Your task to perform on an android device: View the shopping cart on costco.com. Search for "logitech g pro" on costco.com, select the first entry, and add it to the cart. Image 0: 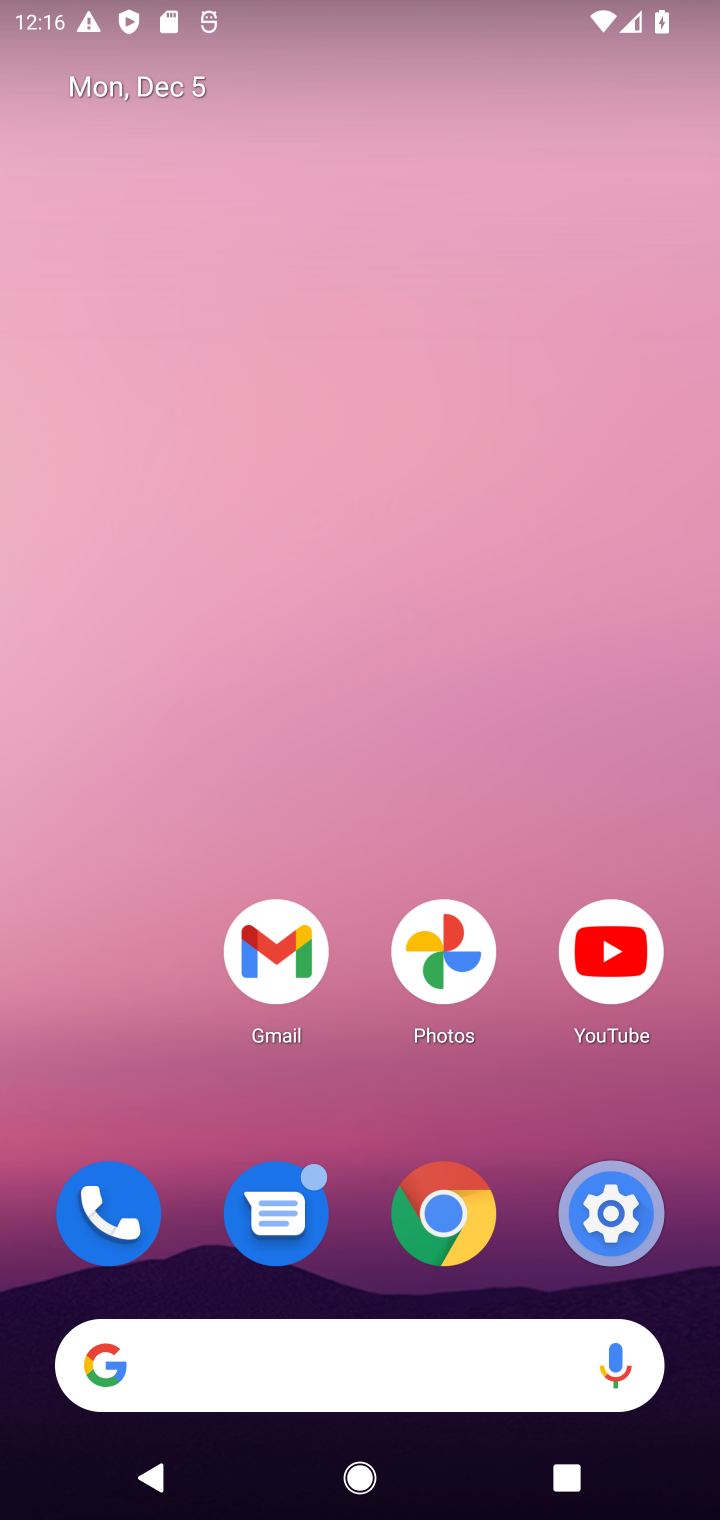
Step 0: click (439, 1216)
Your task to perform on an android device: View the shopping cart on costco.com. Search for "logitech g pro" on costco.com, select the first entry, and add it to the cart. Image 1: 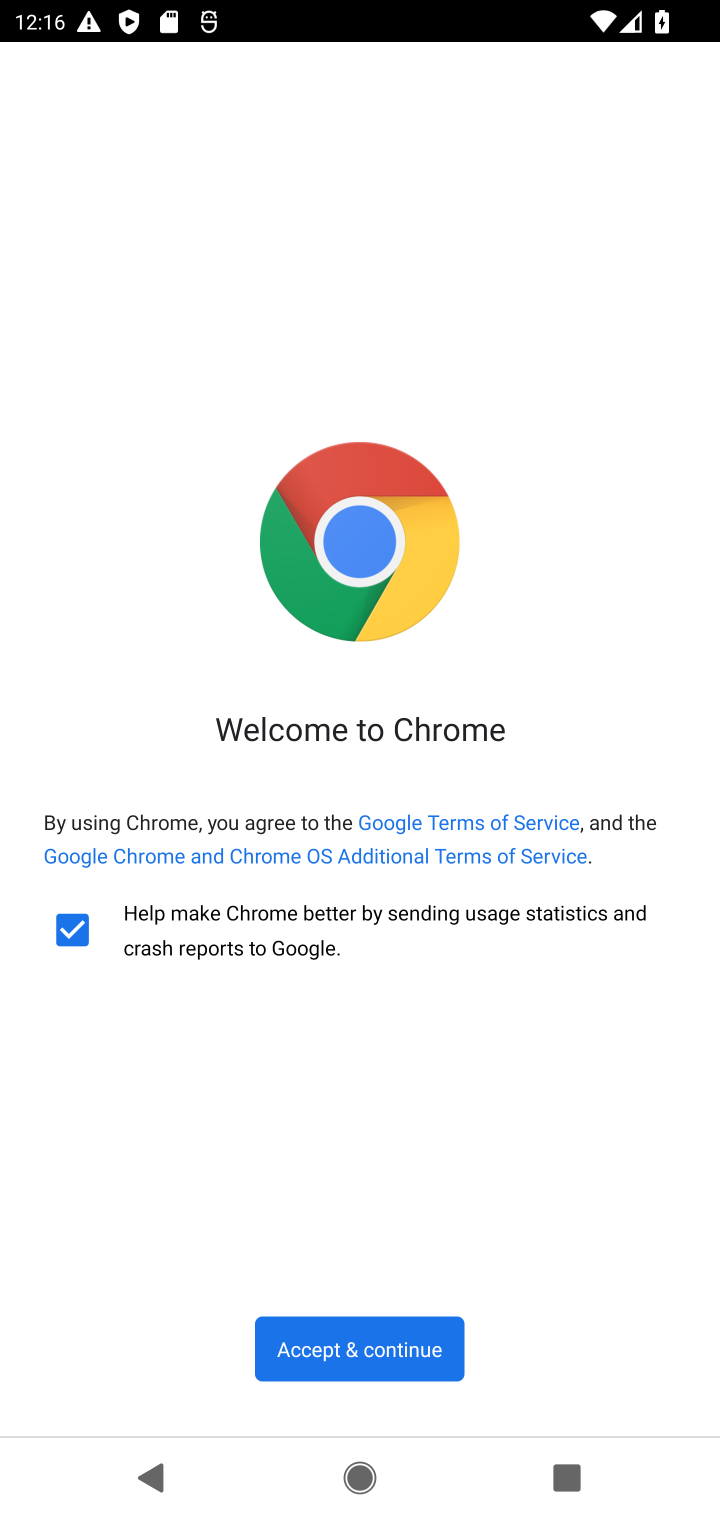
Step 1: click (364, 1339)
Your task to perform on an android device: View the shopping cart on costco.com. Search for "logitech g pro" on costco.com, select the first entry, and add it to the cart. Image 2: 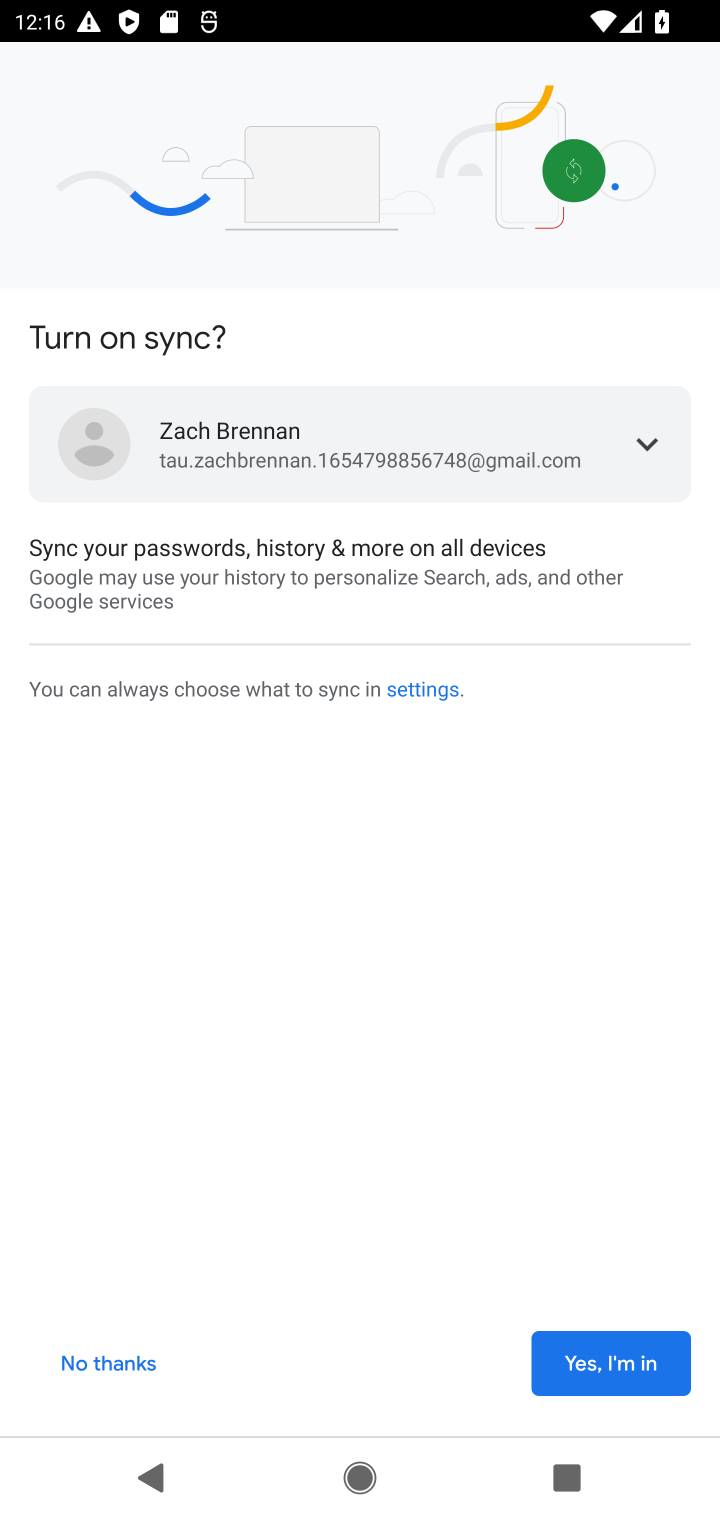
Step 2: click (78, 1354)
Your task to perform on an android device: View the shopping cart on costco.com. Search for "logitech g pro" on costco.com, select the first entry, and add it to the cart. Image 3: 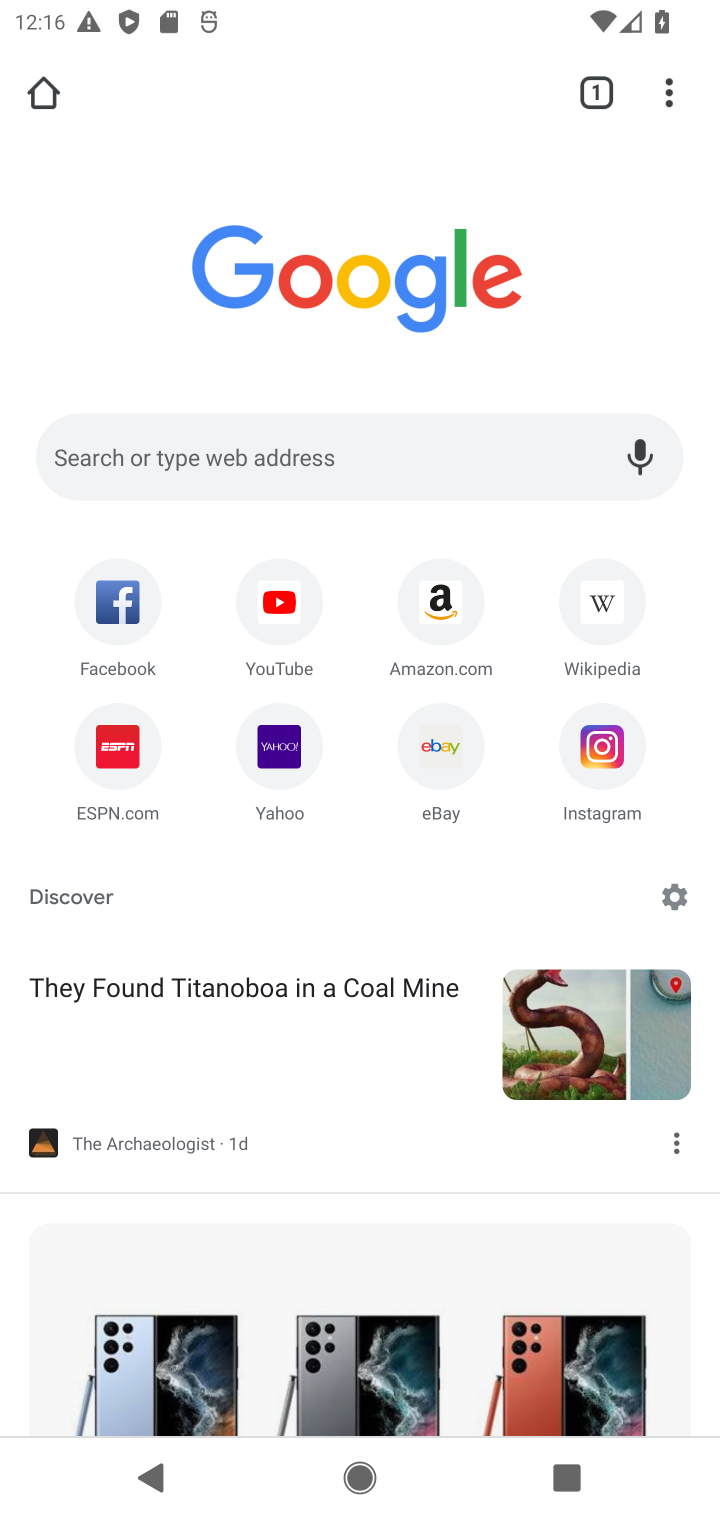
Step 3: click (237, 455)
Your task to perform on an android device: View the shopping cart on costco.com. Search for "logitech g pro" on costco.com, select the first entry, and add it to the cart. Image 4: 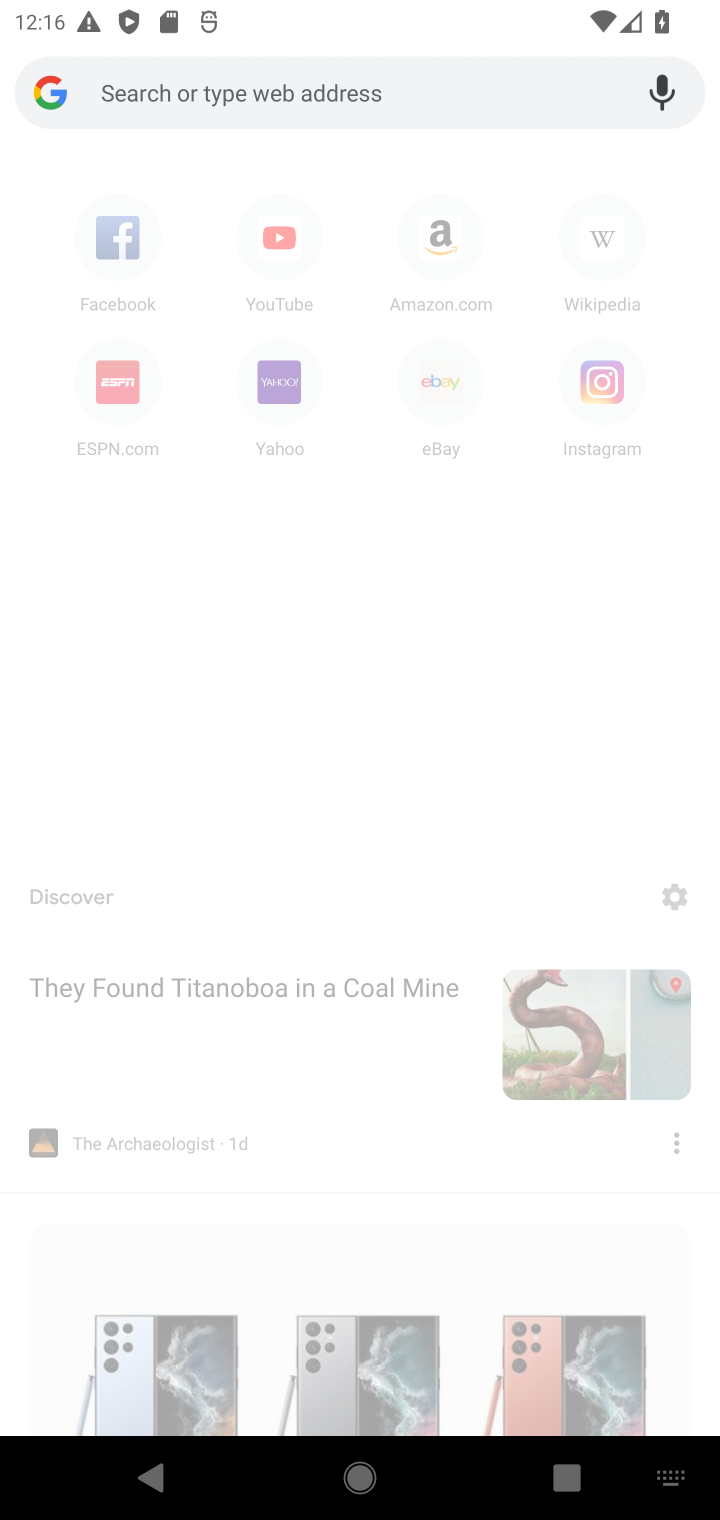
Step 4: type "costco.com"
Your task to perform on an android device: View the shopping cart on costco.com. Search for "logitech g pro" on costco.com, select the first entry, and add it to the cart. Image 5: 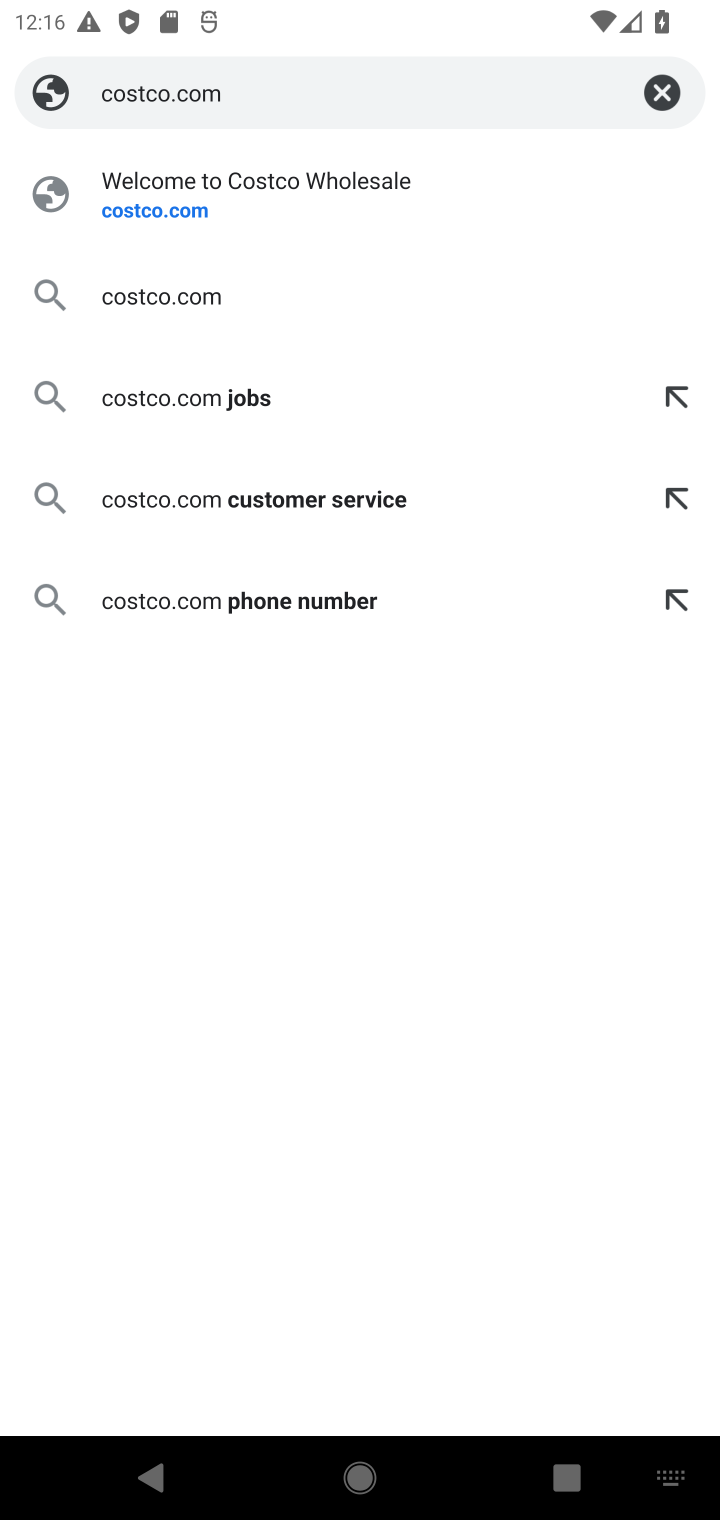
Step 5: click (182, 210)
Your task to perform on an android device: View the shopping cart on costco.com. Search for "logitech g pro" on costco.com, select the first entry, and add it to the cart. Image 6: 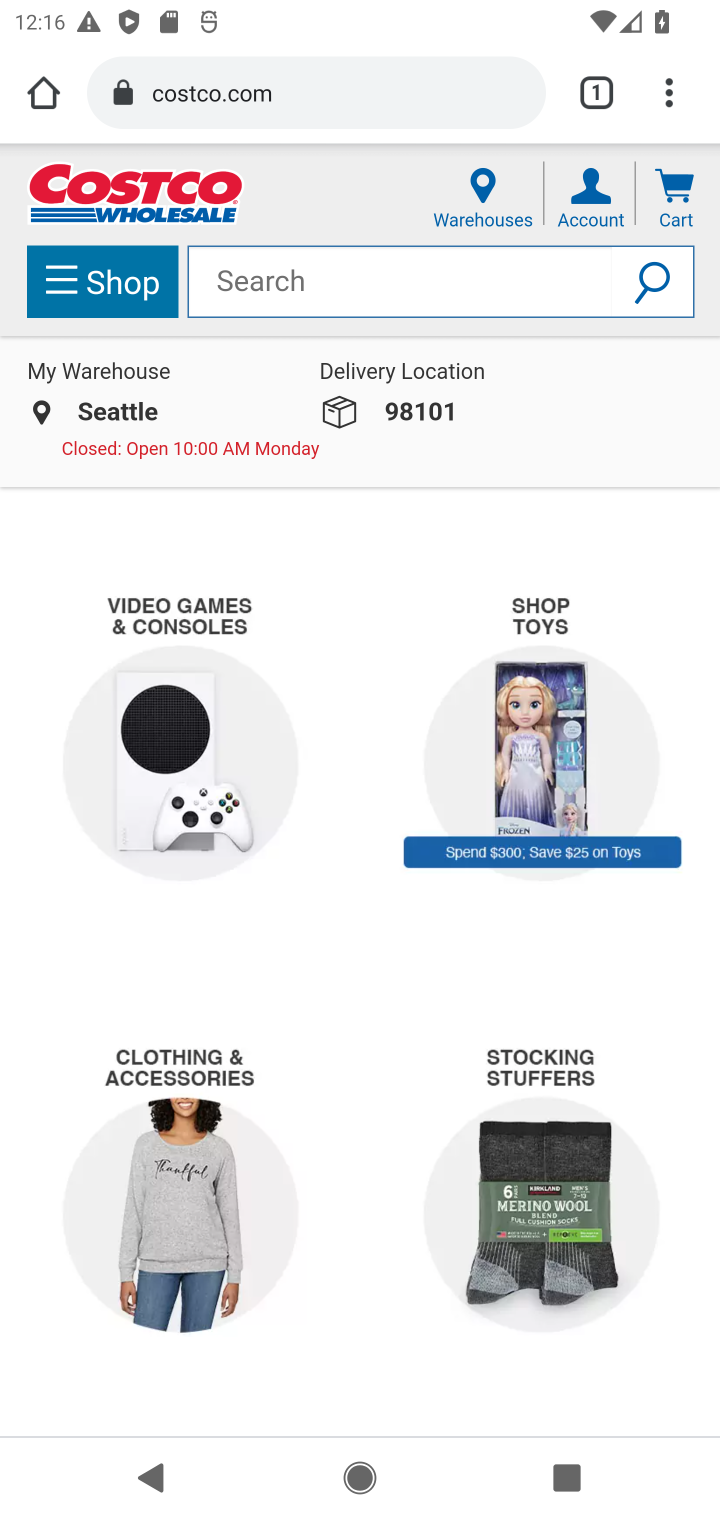
Step 6: click (686, 192)
Your task to perform on an android device: View the shopping cart on costco.com. Search for "logitech g pro" on costco.com, select the first entry, and add it to the cart. Image 7: 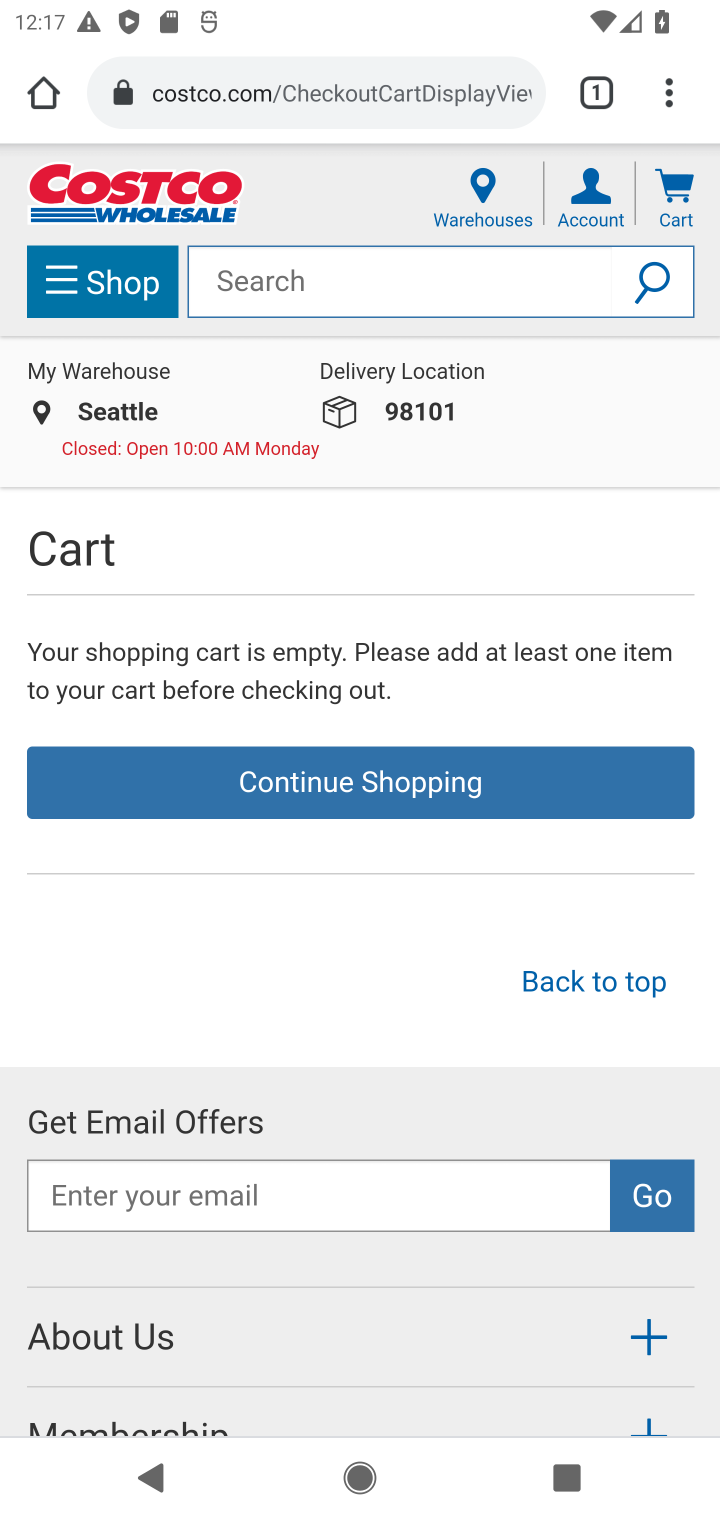
Step 7: click (301, 288)
Your task to perform on an android device: View the shopping cart on costco.com. Search for "logitech g pro" on costco.com, select the first entry, and add it to the cart. Image 8: 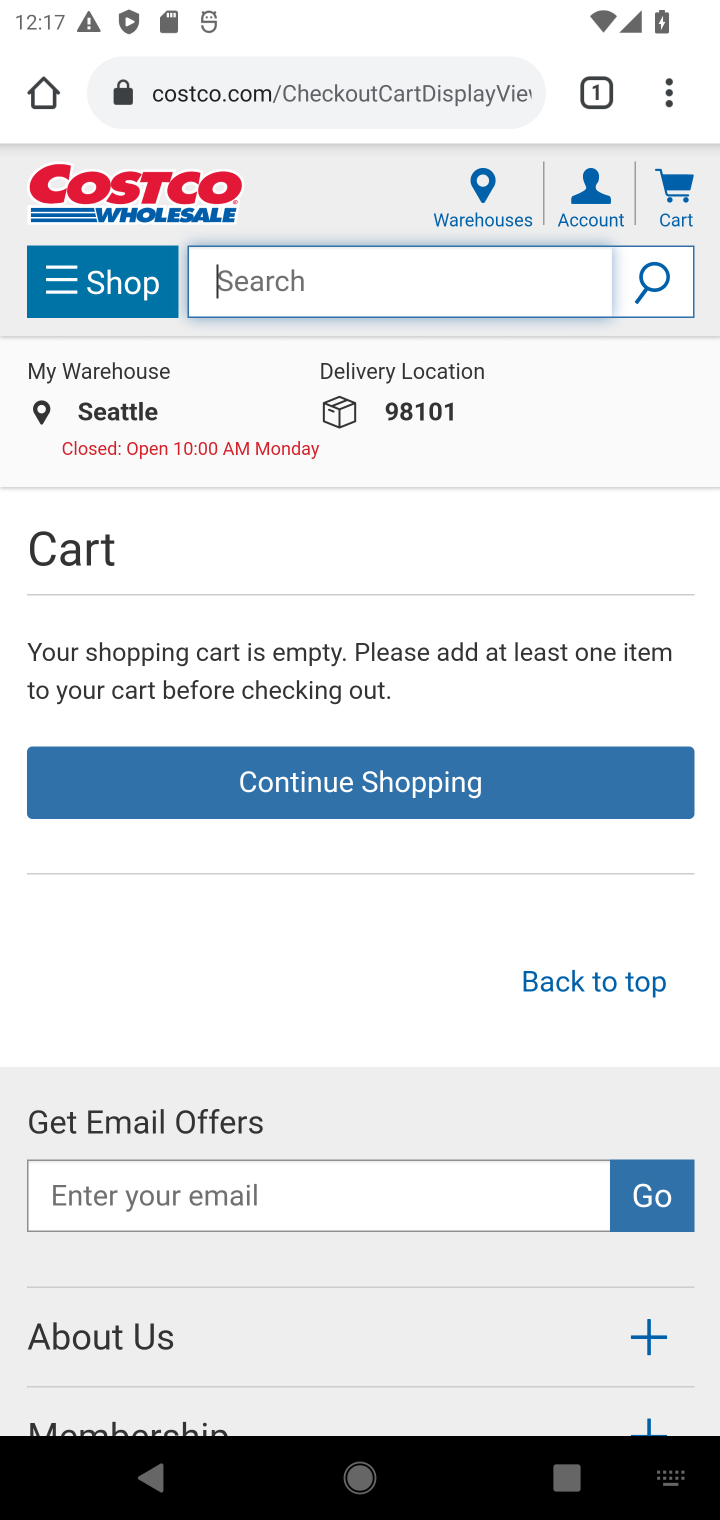
Step 8: type "logitech g pro"
Your task to perform on an android device: View the shopping cart on costco.com. Search for "logitech g pro" on costco.com, select the first entry, and add it to the cart. Image 9: 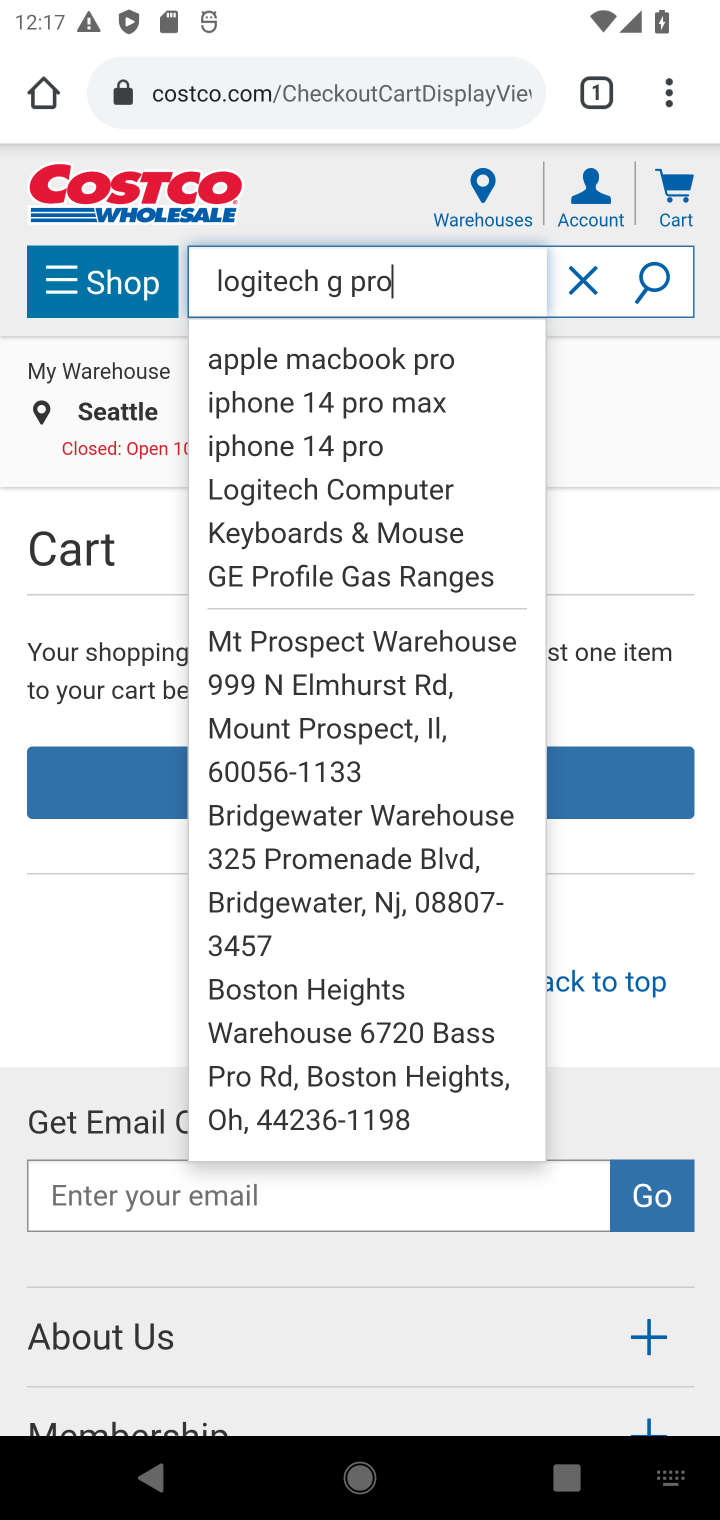
Step 9: click (656, 275)
Your task to perform on an android device: View the shopping cart on costco.com. Search for "logitech g pro" on costco.com, select the first entry, and add it to the cart. Image 10: 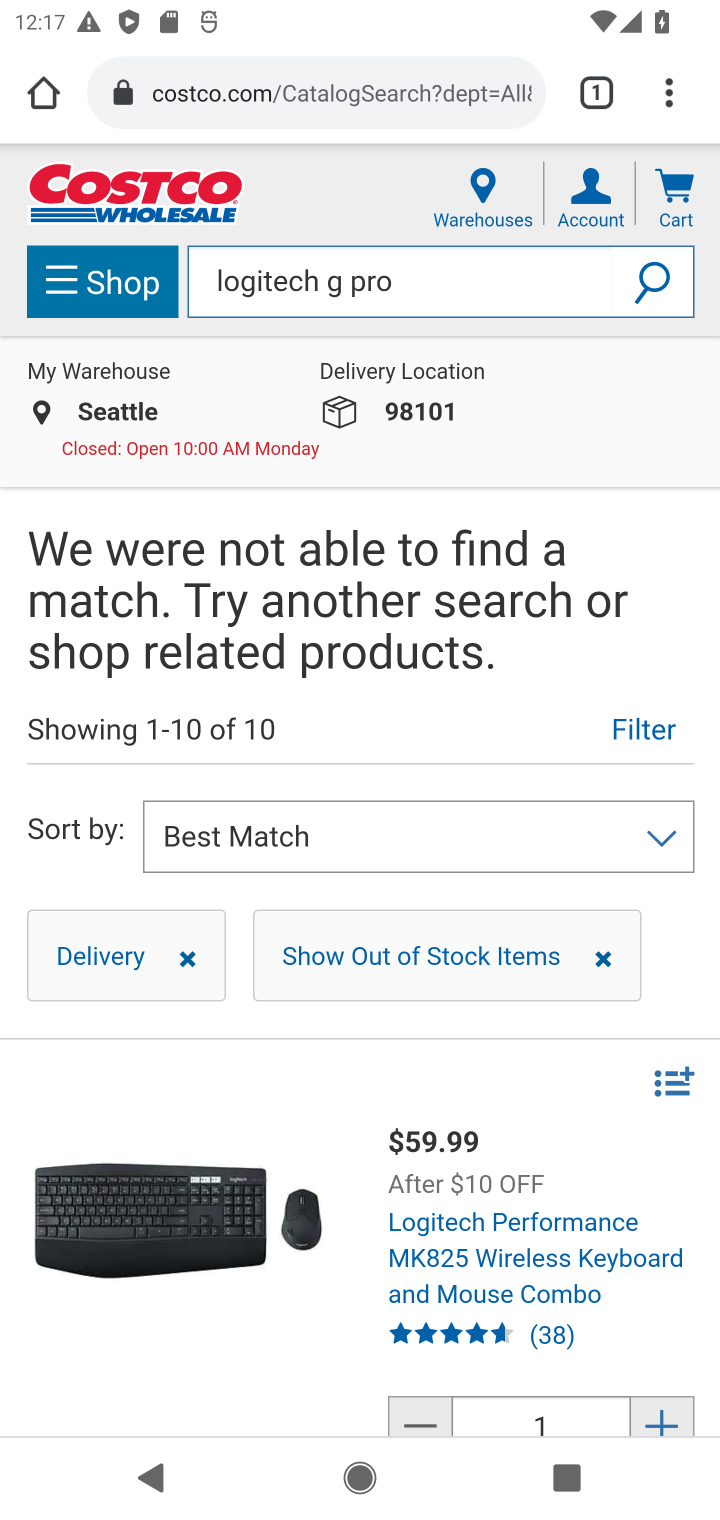
Step 10: task complete